Your task to perform on an android device: Search for pizza restaurants on Maps Image 0: 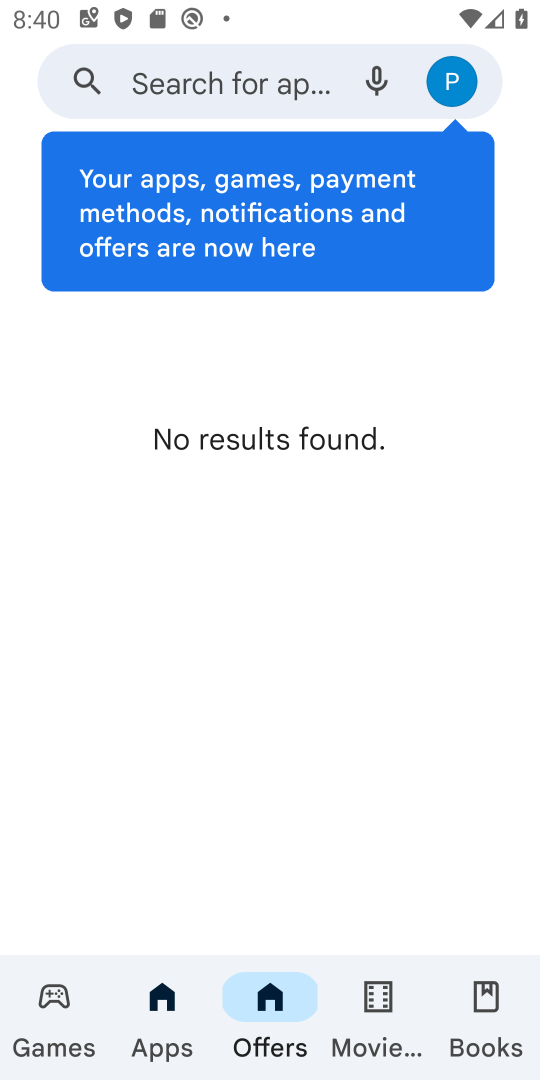
Step 0: press home button
Your task to perform on an android device: Search for pizza restaurants on Maps Image 1: 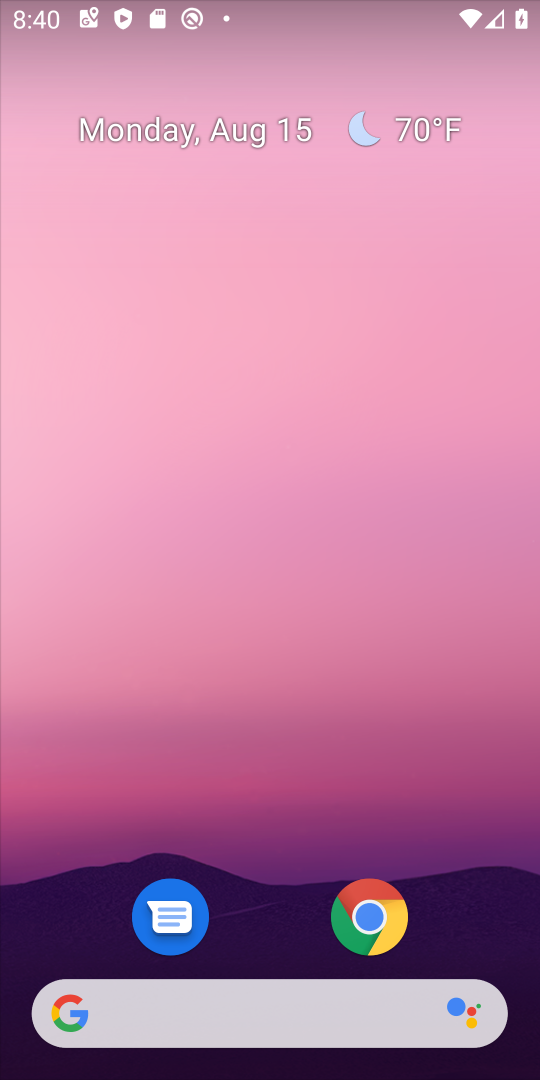
Step 1: drag from (294, 878) to (270, 34)
Your task to perform on an android device: Search for pizza restaurants on Maps Image 2: 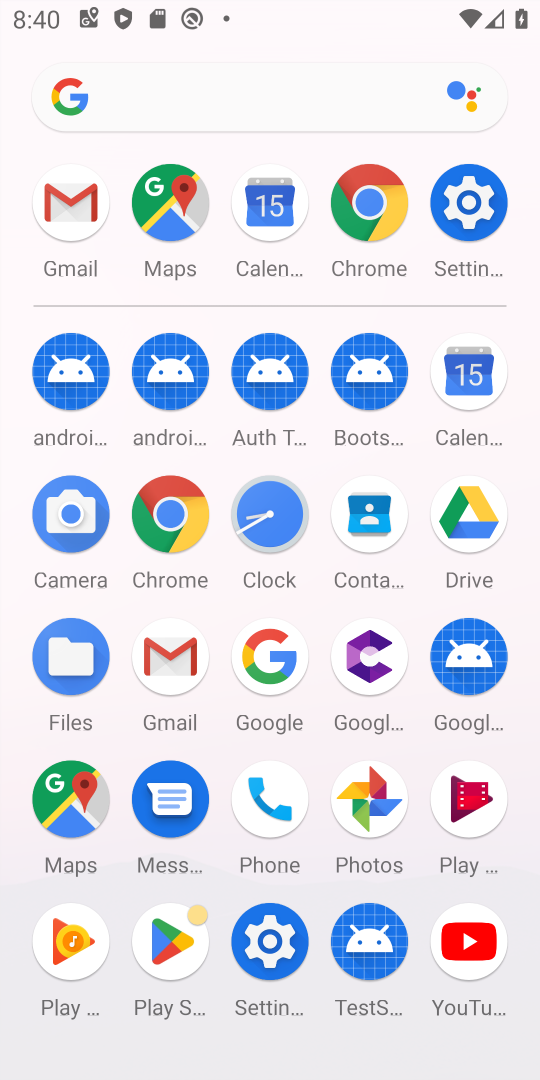
Step 2: click (175, 199)
Your task to perform on an android device: Search for pizza restaurants on Maps Image 3: 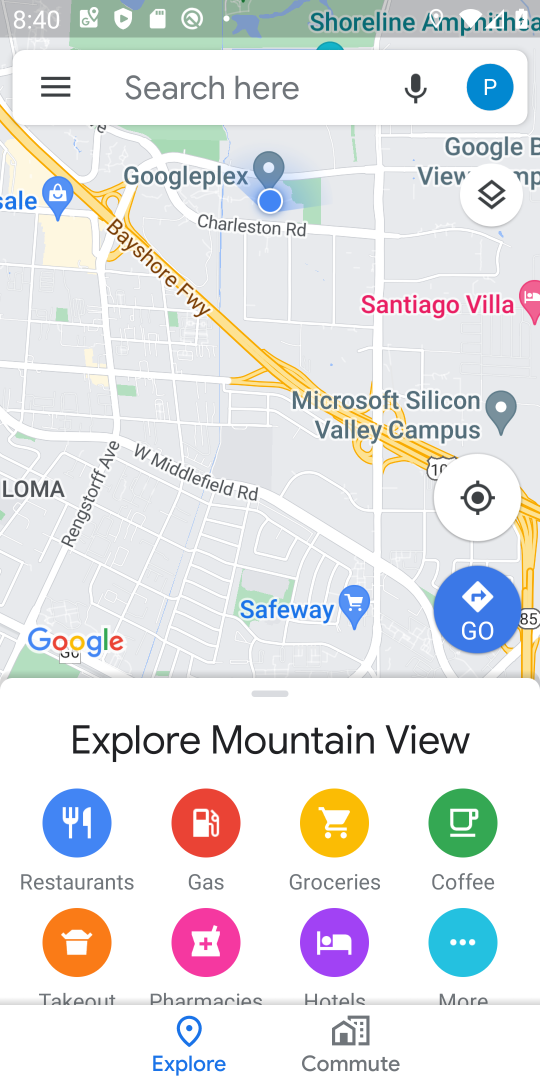
Step 3: click (229, 83)
Your task to perform on an android device: Search for pizza restaurants on Maps Image 4: 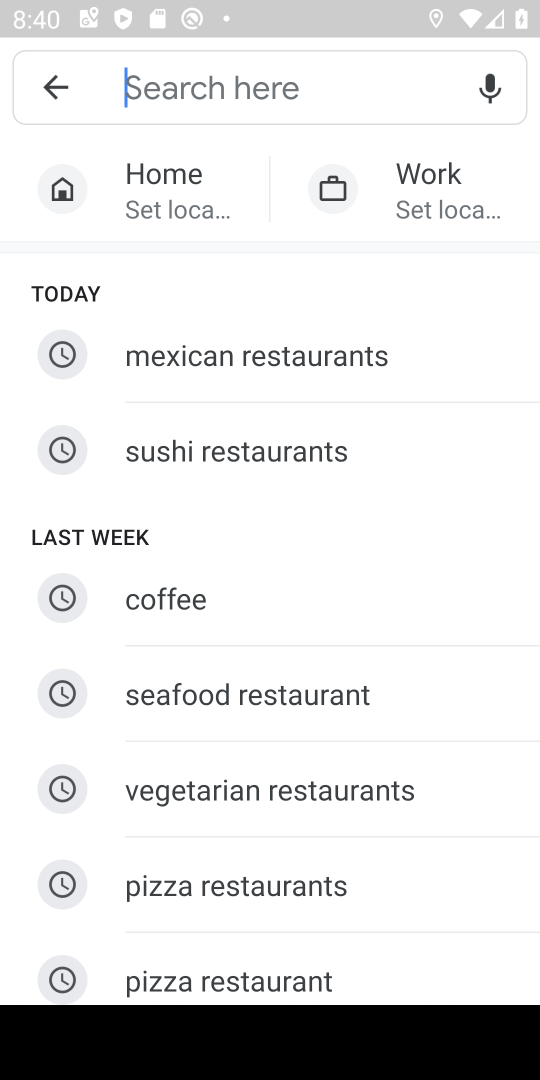
Step 4: click (298, 884)
Your task to perform on an android device: Search for pizza restaurants on Maps Image 5: 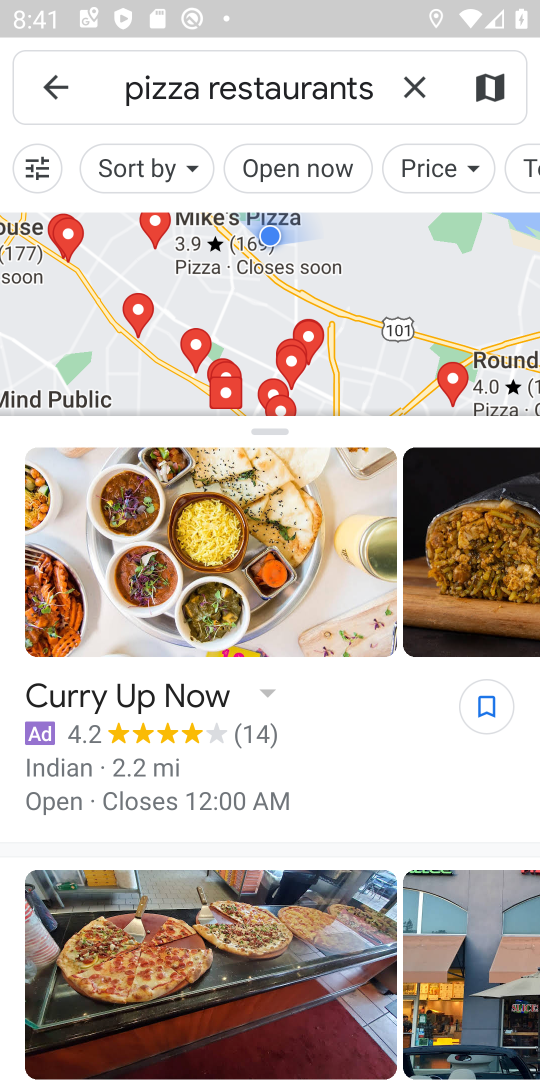
Step 5: task complete